Your task to perform on an android device: Open Google Chrome and open the bookmarks view Image 0: 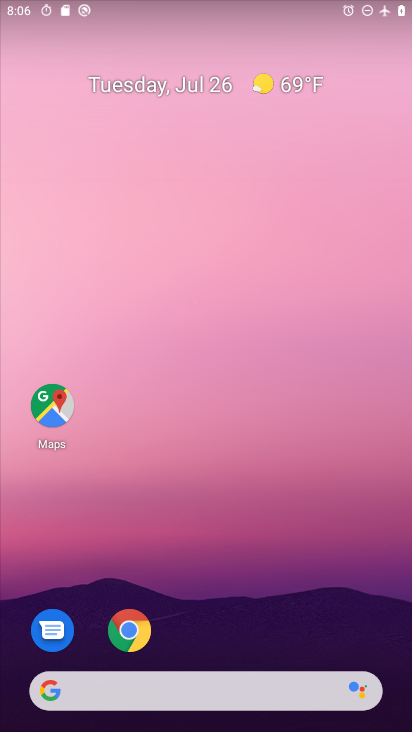
Step 0: drag from (277, 590) to (256, 85)
Your task to perform on an android device: Open Google Chrome and open the bookmarks view Image 1: 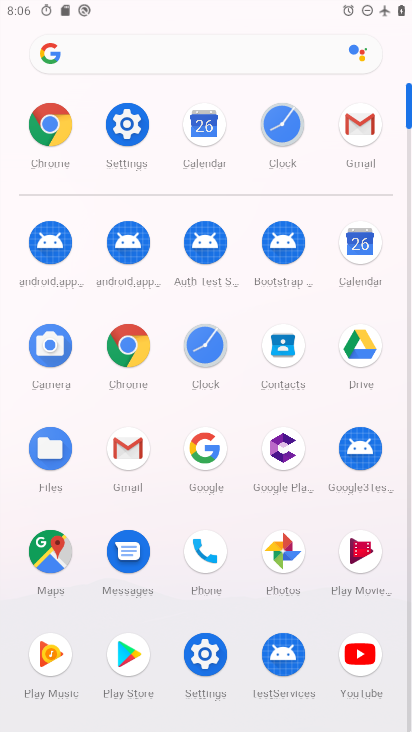
Step 1: click (133, 348)
Your task to perform on an android device: Open Google Chrome and open the bookmarks view Image 2: 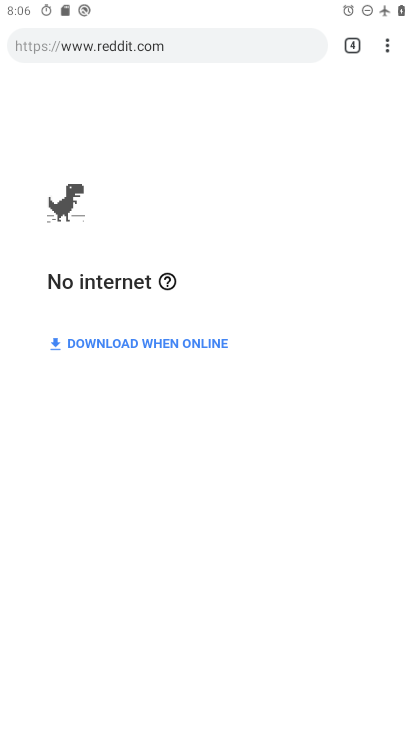
Step 2: drag from (389, 42) to (328, 72)
Your task to perform on an android device: Open Google Chrome and open the bookmarks view Image 3: 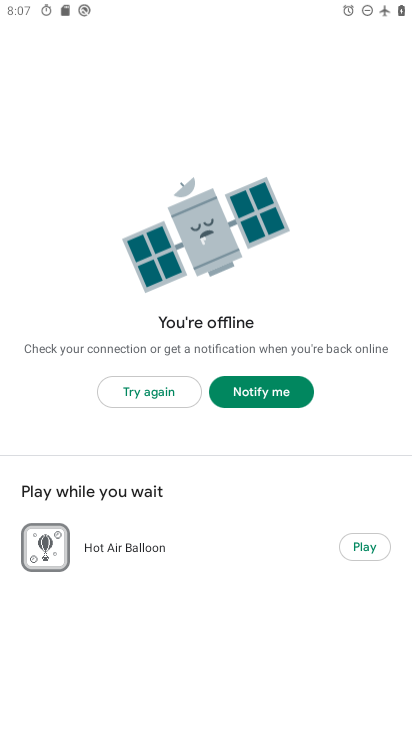
Step 3: press back button
Your task to perform on an android device: Open Google Chrome and open the bookmarks view Image 4: 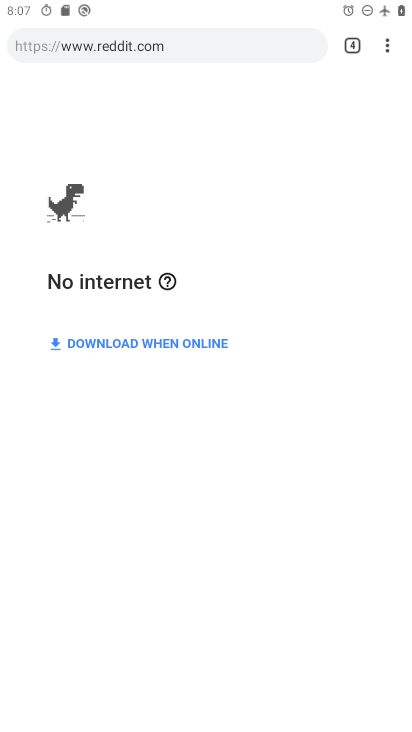
Step 4: click (386, 49)
Your task to perform on an android device: Open Google Chrome and open the bookmarks view Image 5: 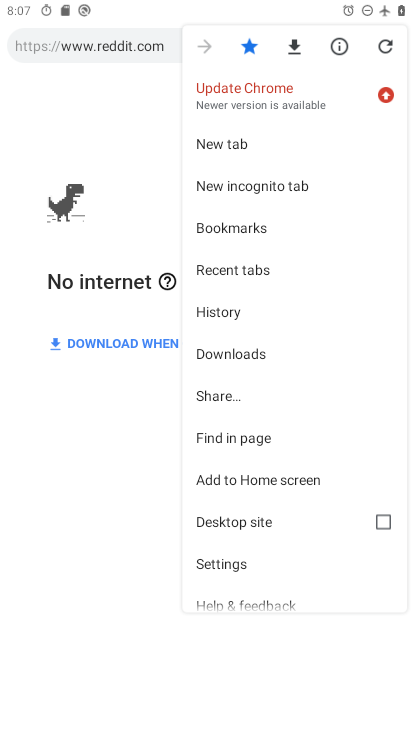
Step 5: click (276, 233)
Your task to perform on an android device: Open Google Chrome and open the bookmarks view Image 6: 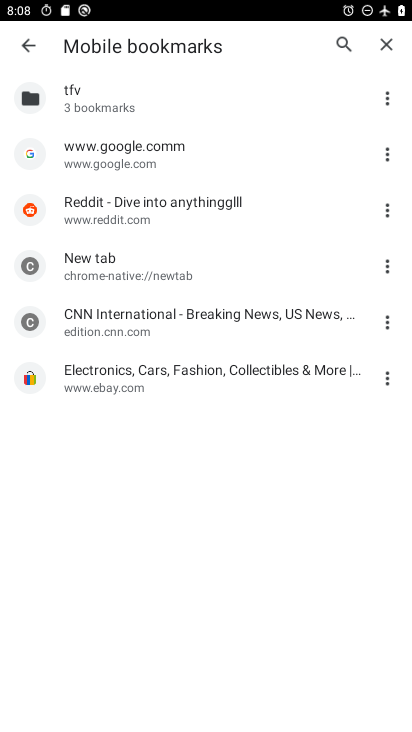
Step 6: task complete